Your task to perform on an android device: open app "Speedtest by Ookla" (install if not already installed) Image 0: 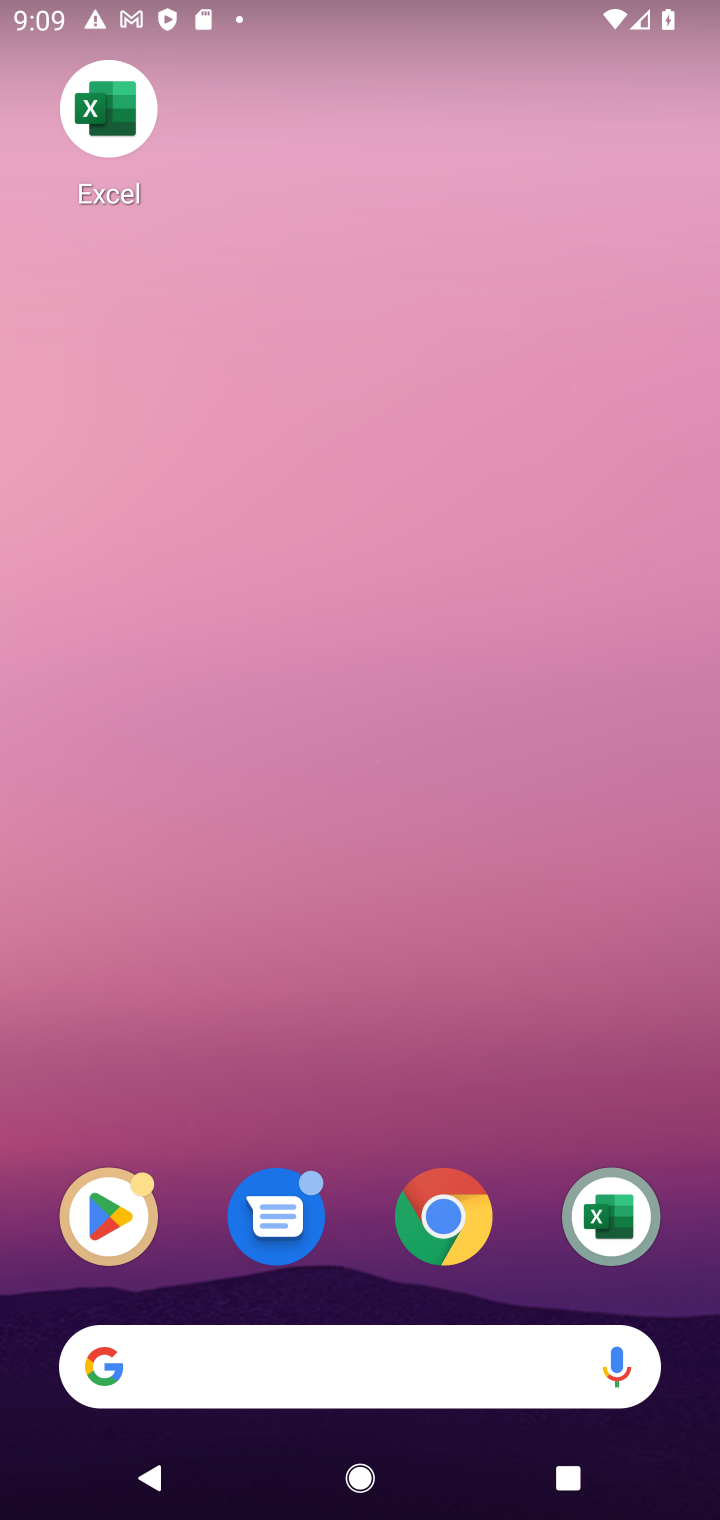
Step 0: click (106, 1221)
Your task to perform on an android device: open app "Speedtest by Ookla" (install if not already installed) Image 1: 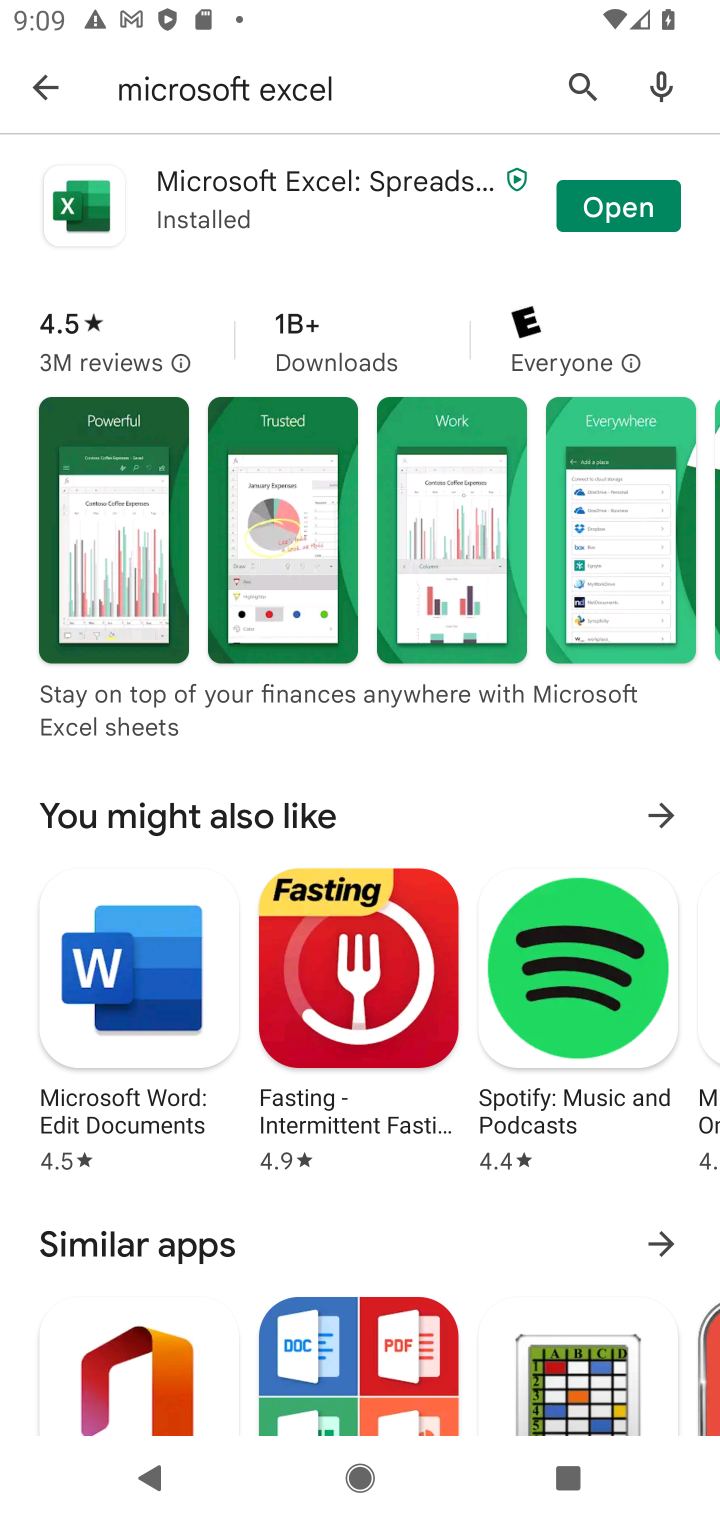
Step 1: click (562, 84)
Your task to perform on an android device: open app "Speedtest by Ookla" (install if not already installed) Image 2: 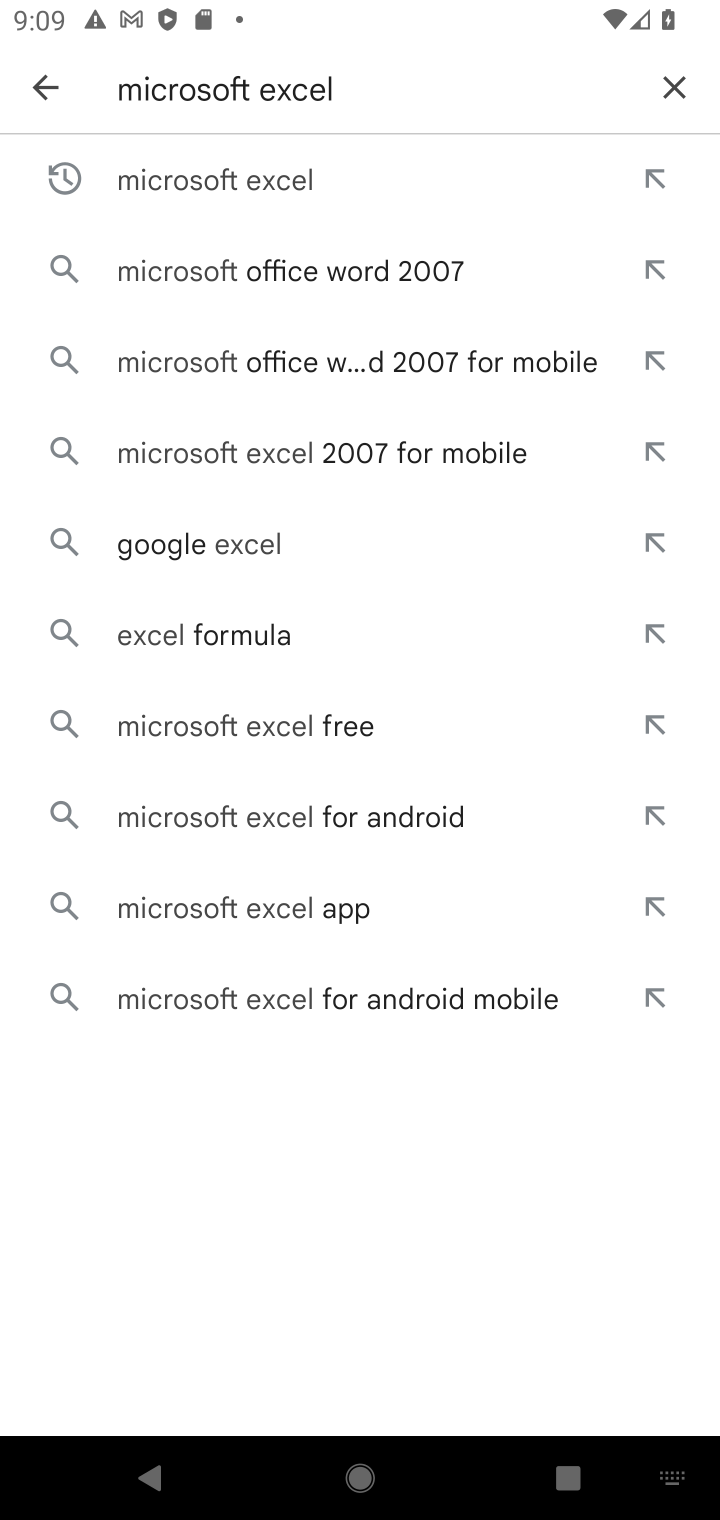
Step 2: click (664, 95)
Your task to perform on an android device: open app "Speedtest by Ookla" (install if not already installed) Image 3: 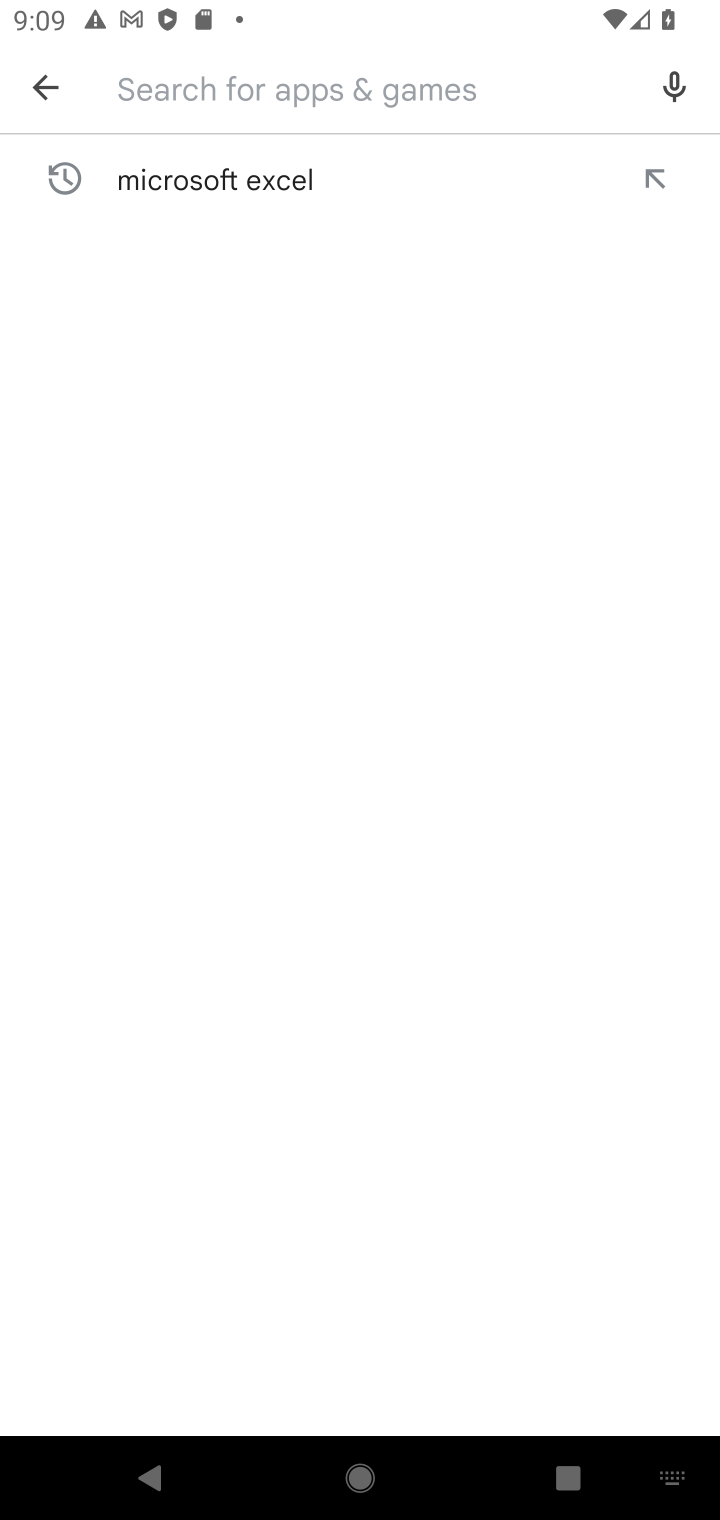
Step 3: type "Speedtest by Ookla"
Your task to perform on an android device: open app "Speedtest by Ookla" (install if not already installed) Image 4: 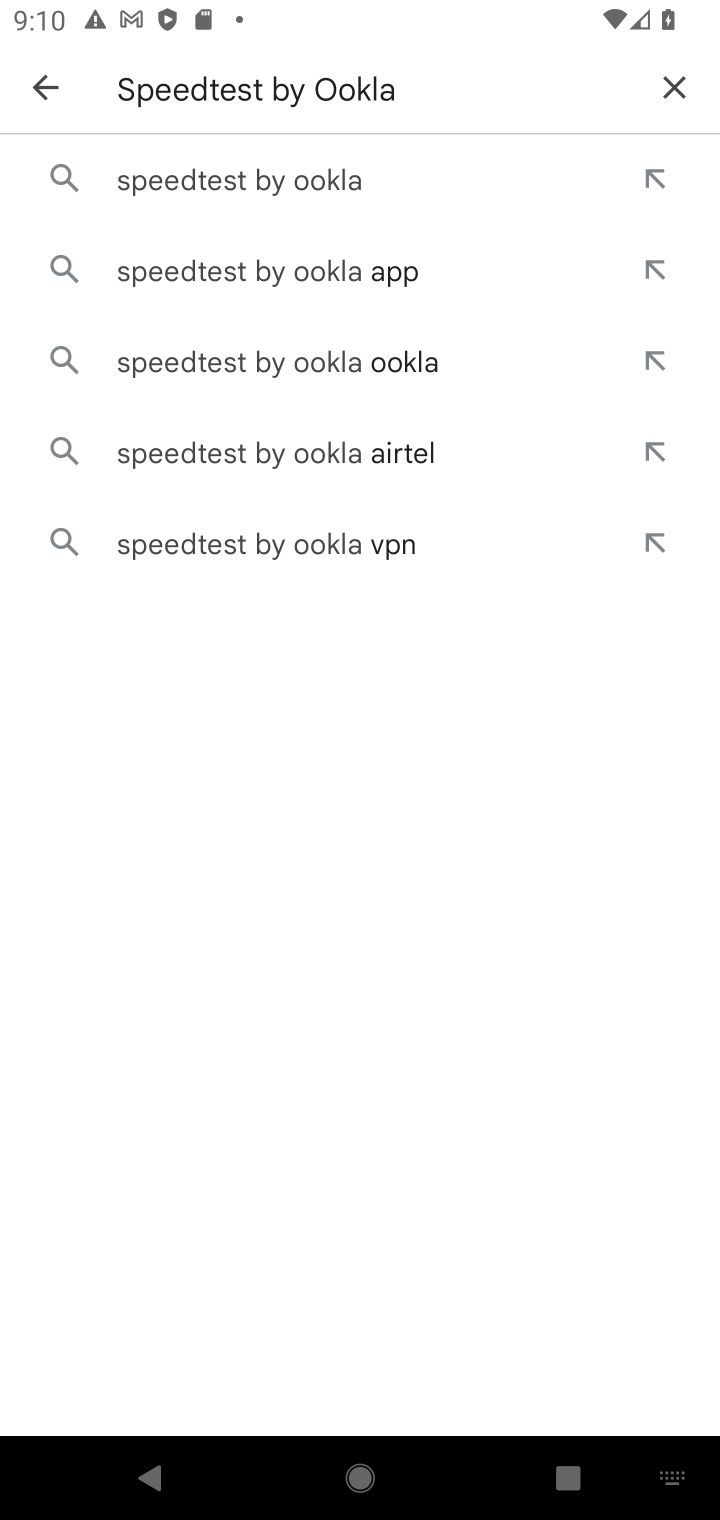
Step 4: click (195, 183)
Your task to perform on an android device: open app "Speedtest by Ookla" (install if not already installed) Image 5: 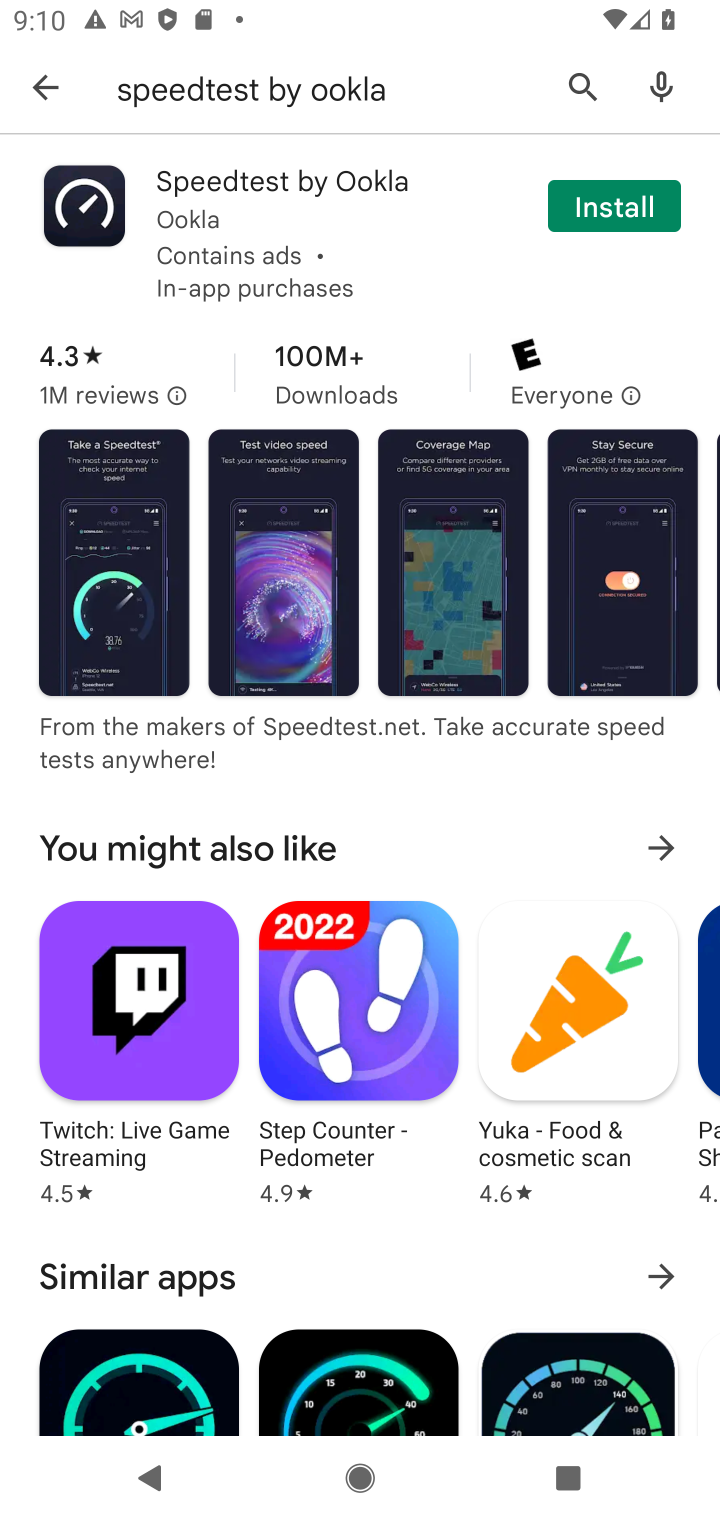
Step 5: click (590, 197)
Your task to perform on an android device: open app "Speedtest by Ookla" (install if not already installed) Image 6: 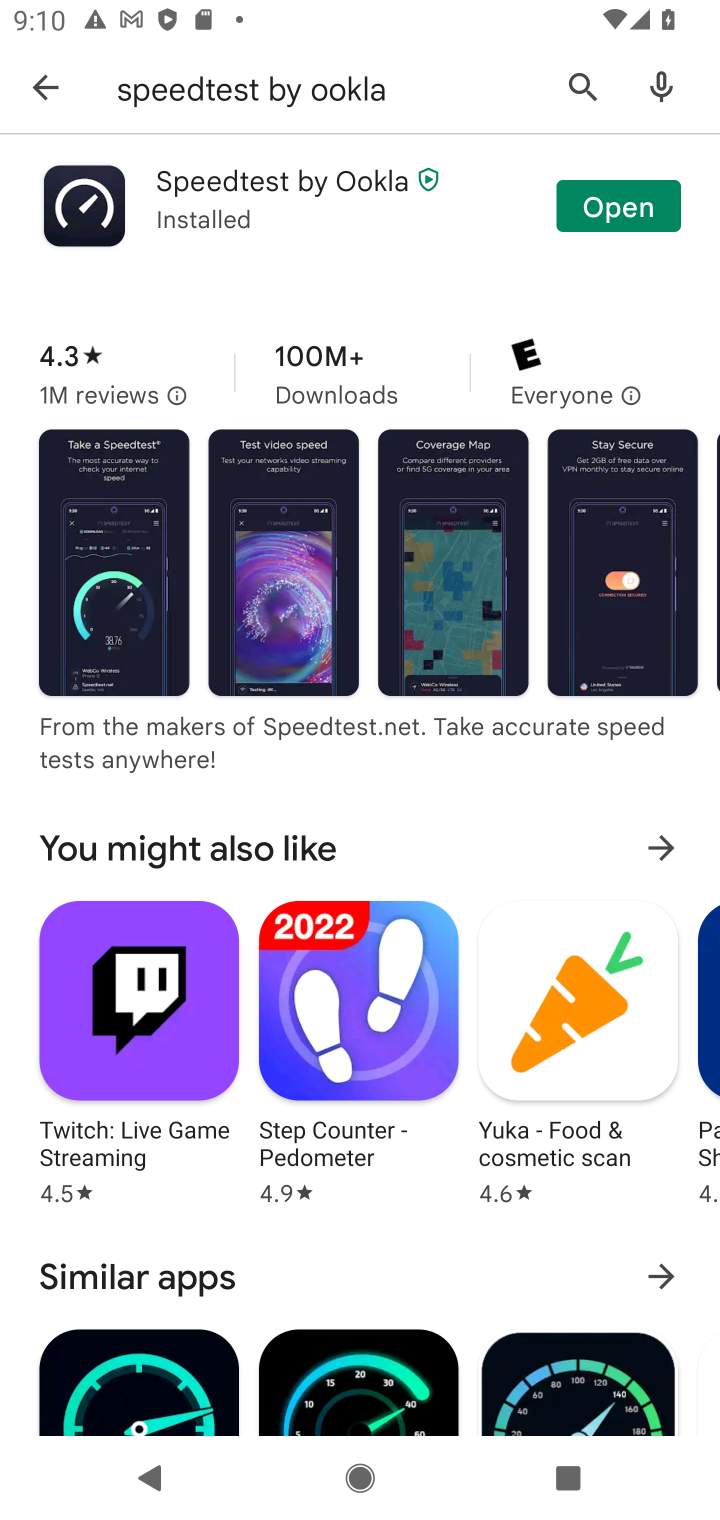
Step 6: click (590, 197)
Your task to perform on an android device: open app "Speedtest by Ookla" (install if not already installed) Image 7: 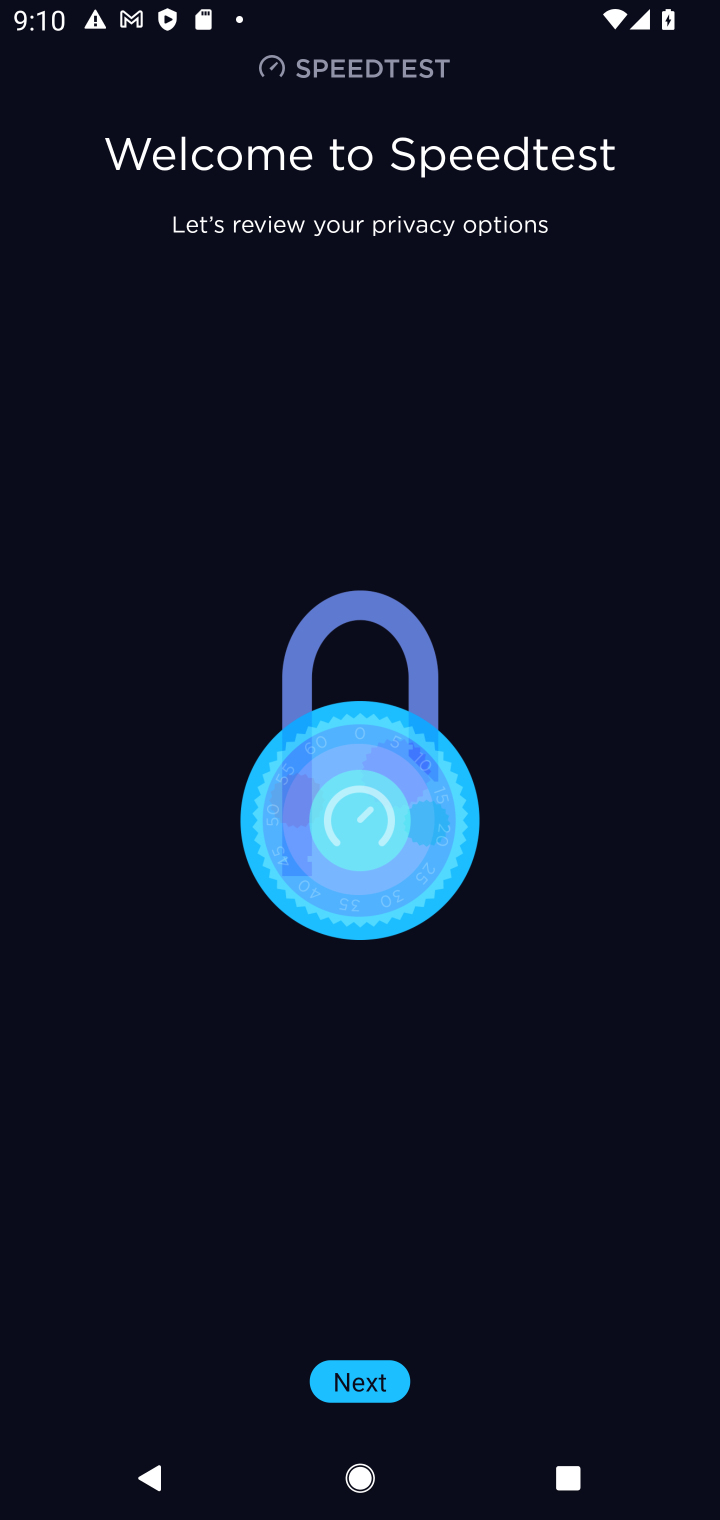
Step 7: task complete